Your task to perform on an android device: open wifi settings Image 0: 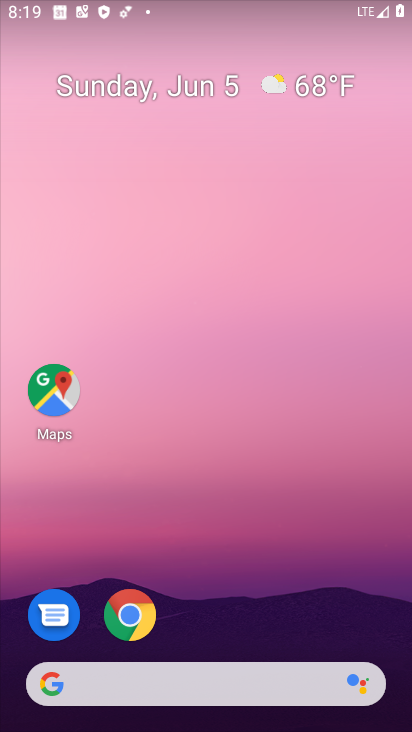
Step 0: drag from (177, 680) to (164, 75)
Your task to perform on an android device: open wifi settings Image 1: 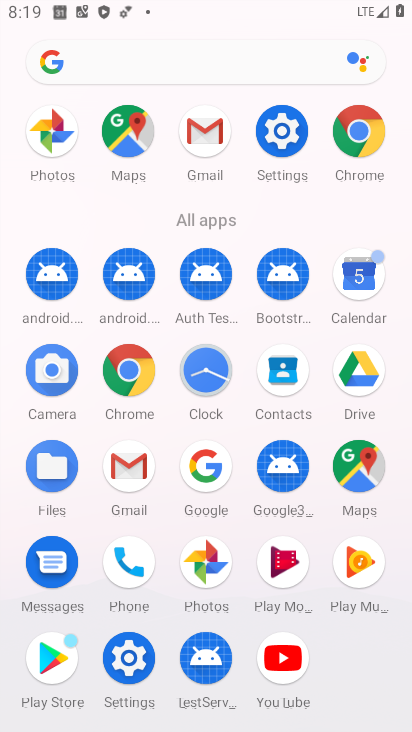
Step 1: click (275, 141)
Your task to perform on an android device: open wifi settings Image 2: 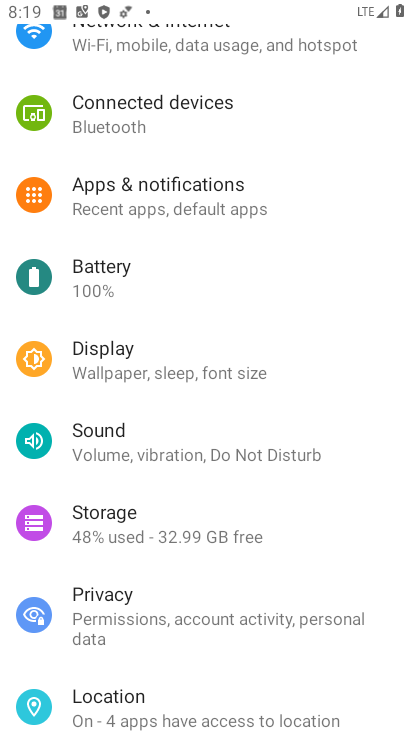
Step 2: drag from (275, 141) to (220, 658)
Your task to perform on an android device: open wifi settings Image 3: 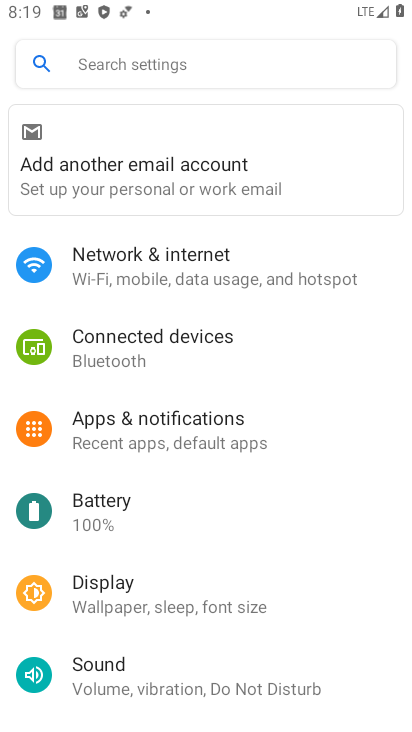
Step 3: click (130, 255)
Your task to perform on an android device: open wifi settings Image 4: 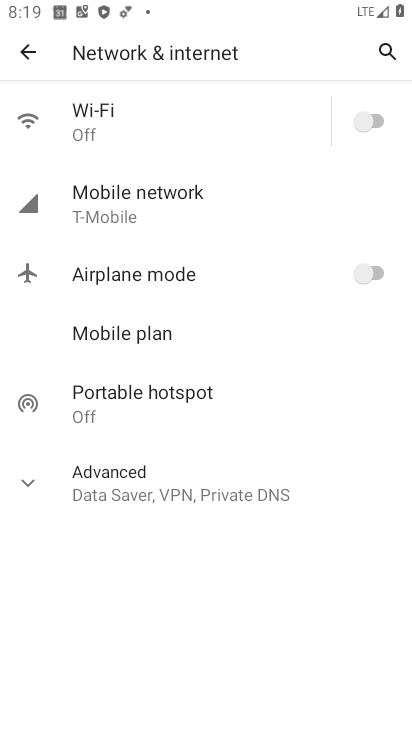
Step 4: click (134, 117)
Your task to perform on an android device: open wifi settings Image 5: 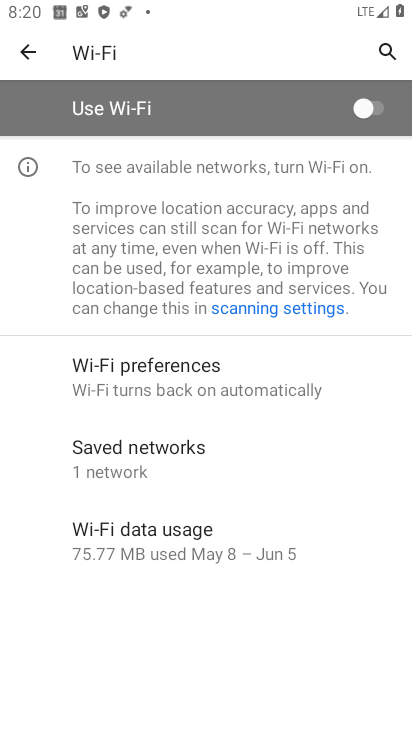
Step 5: task complete